Your task to perform on an android device: turn pop-ups on in chrome Image 0: 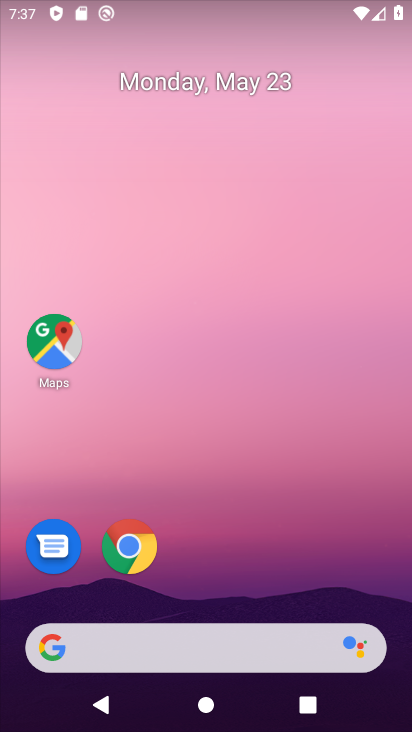
Step 0: drag from (392, 600) to (381, 173)
Your task to perform on an android device: turn pop-ups on in chrome Image 1: 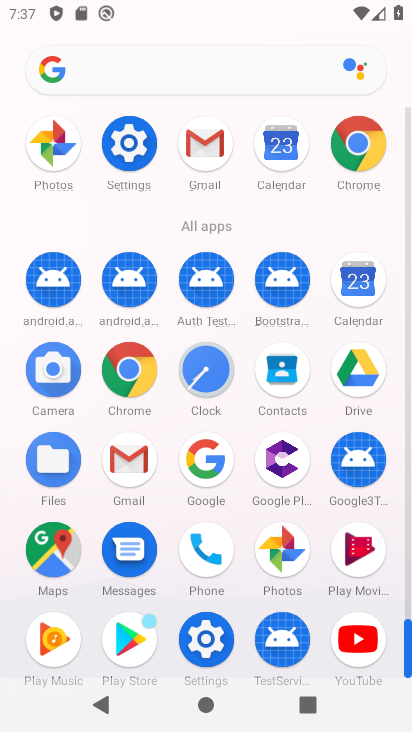
Step 1: click (138, 389)
Your task to perform on an android device: turn pop-ups on in chrome Image 2: 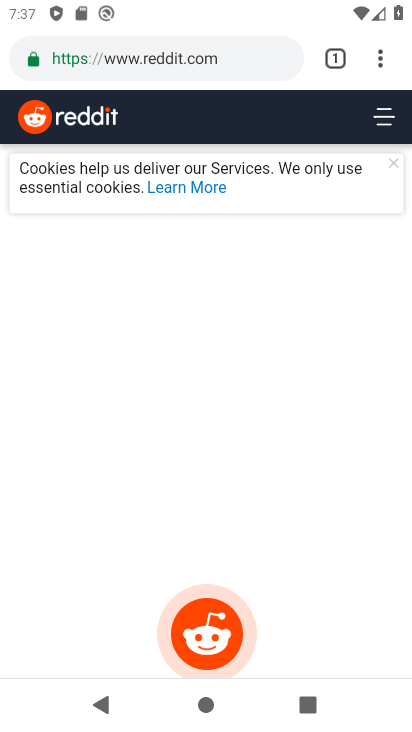
Step 2: click (380, 65)
Your task to perform on an android device: turn pop-ups on in chrome Image 3: 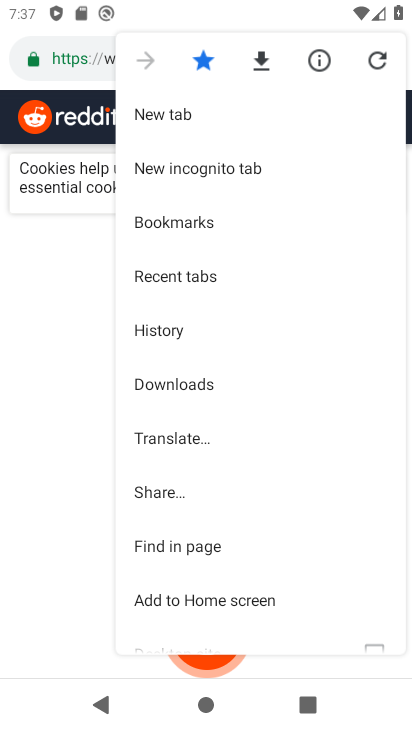
Step 3: drag from (362, 535) to (361, 429)
Your task to perform on an android device: turn pop-ups on in chrome Image 4: 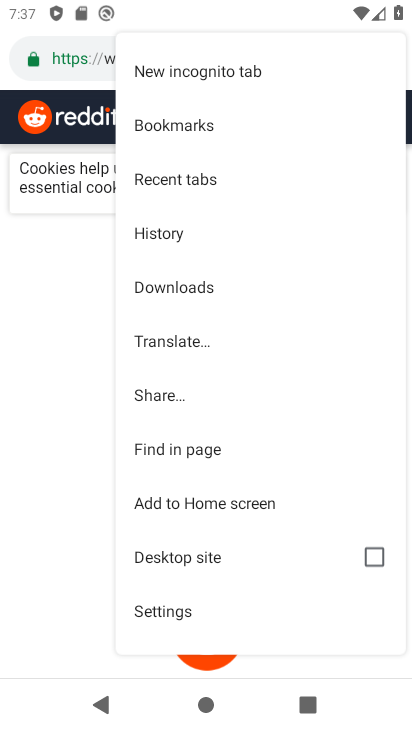
Step 4: drag from (308, 608) to (333, 465)
Your task to perform on an android device: turn pop-ups on in chrome Image 5: 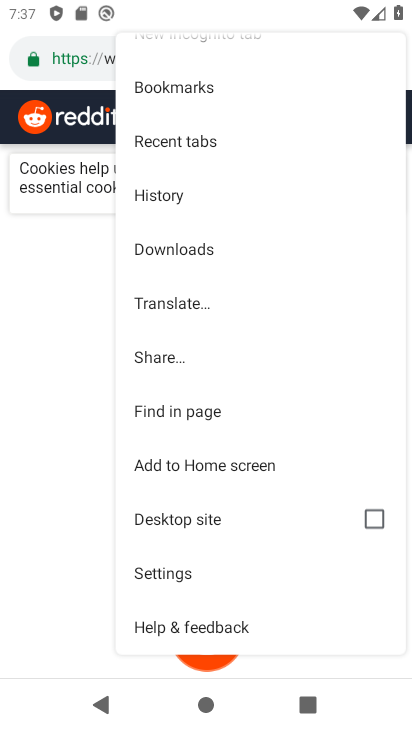
Step 5: click (173, 584)
Your task to perform on an android device: turn pop-ups on in chrome Image 6: 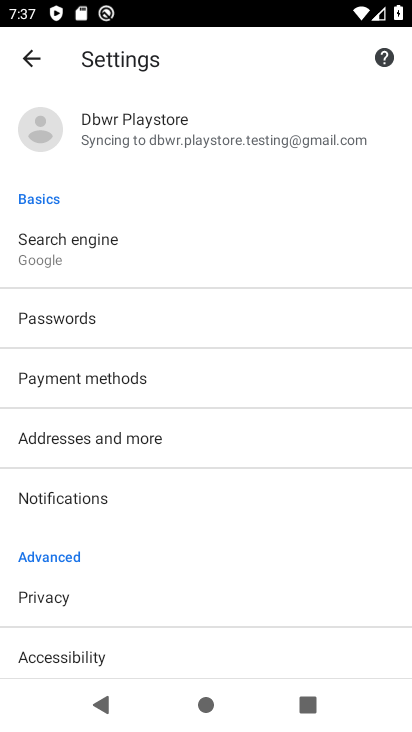
Step 6: drag from (344, 612) to (349, 529)
Your task to perform on an android device: turn pop-ups on in chrome Image 7: 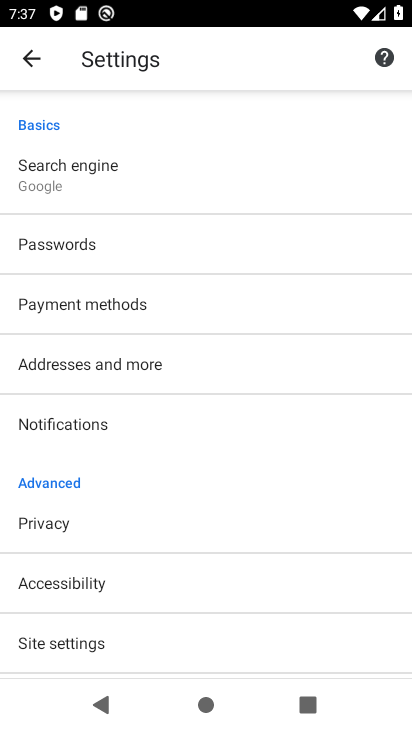
Step 7: drag from (358, 620) to (359, 540)
Your task to perform on an android device: turn pop-ups on in chrome Image 8: 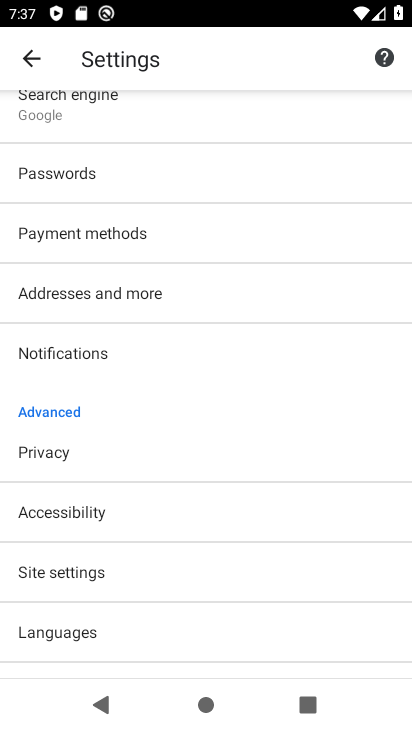
Step 8: drag from (359, 633) to (362, 557)
Your task to perform on an android device: turn pop-ups on in chrome Image 9: 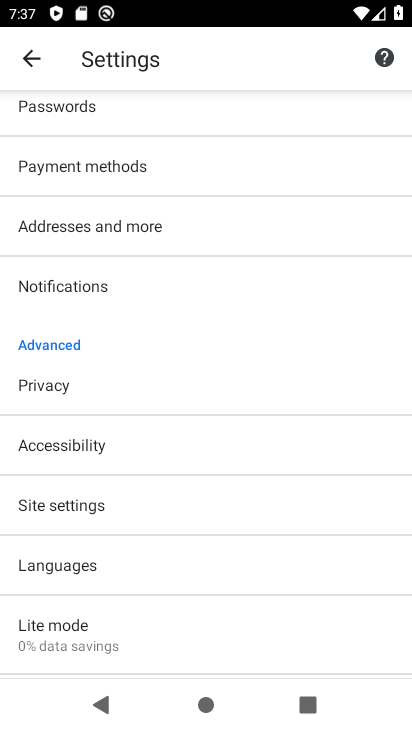
Step 9: drag from (352, 623) to (356, 542)
Your task to perform on an android device: turn pop-ups on in chrome Image 10: 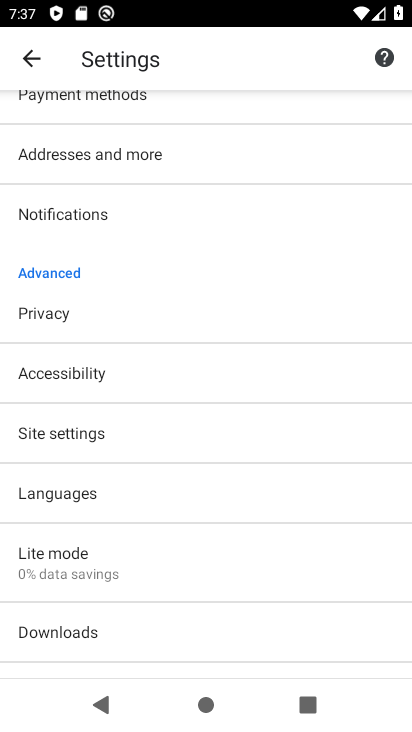
Step 10: drag from (355, 637) to (354, 541)
Your task to perform on an android device: turn pop-ups on in chrome Image 11: 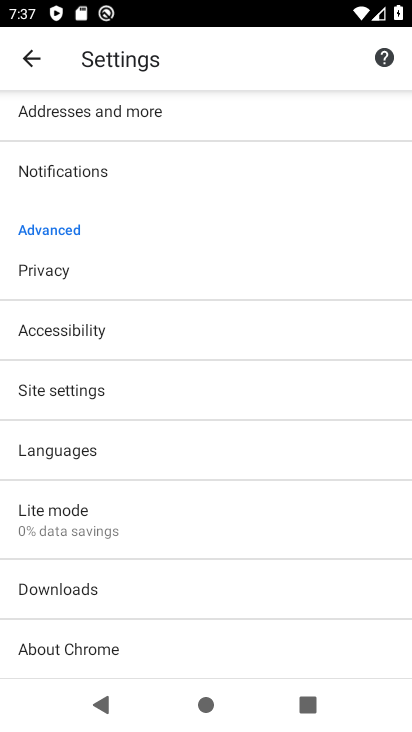
Step 11: click (214, 394)
Your task to perform on an android device: turn pop-ups on in chrome Image 12: 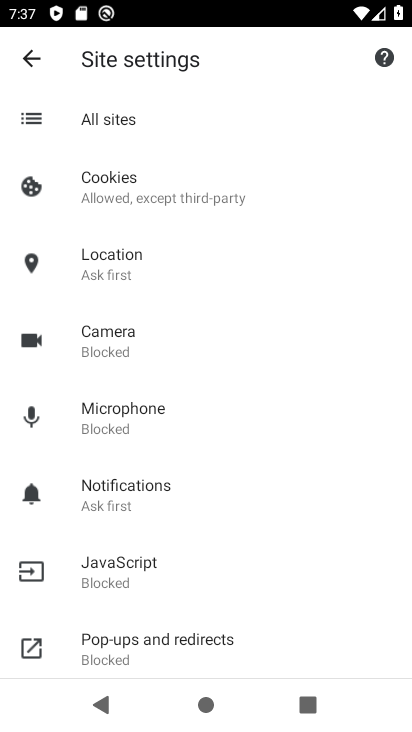
Step 12: drag from (320, 571) to (322, 475)
Your task to perform on an android device: turn pop-ups on in chrome Image 13: 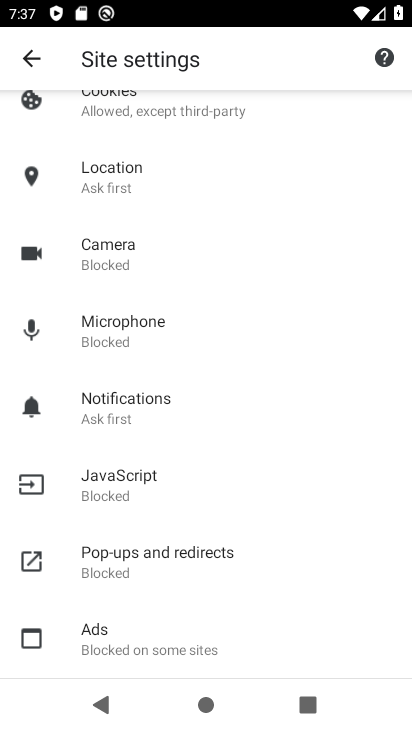
Step 13: drag from (350, 607) to (353, 489)
Your task to perform on an android device: turn pop-ups on in chrome Image 14: 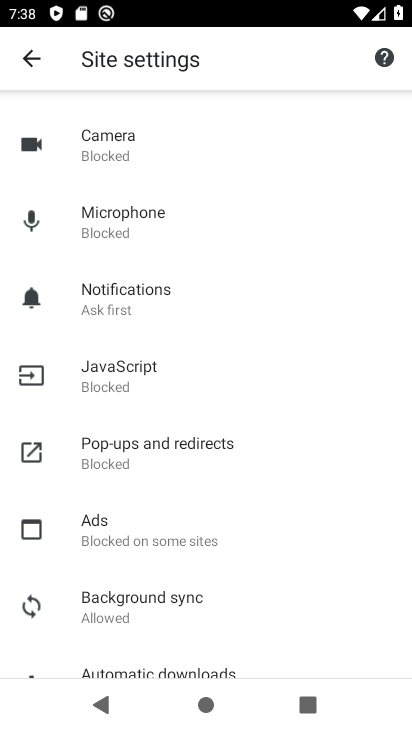
Step 14: drag from (364, 601) to (363, 511)
Your task to perform on an android device: turn pop-ups on in chrome Image 15: 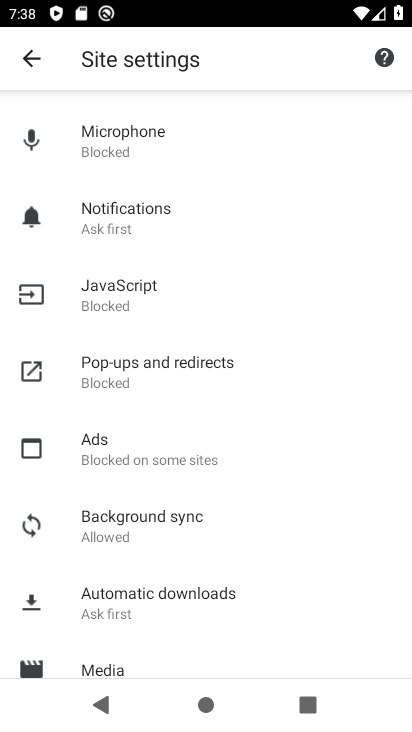
Step 15: click (174, 367)
Your task to perform on an android device: turn pop-ups on in chrome Image 16: 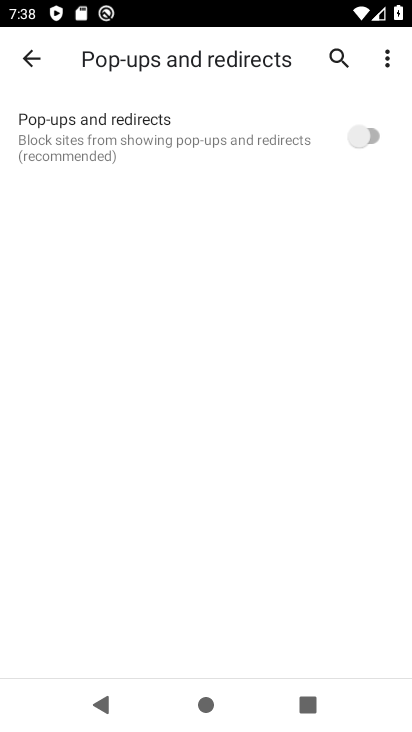
Step 16: click (364, 134)
Your task to perform on an android device: turn pop-ups on in chrome Image 17: 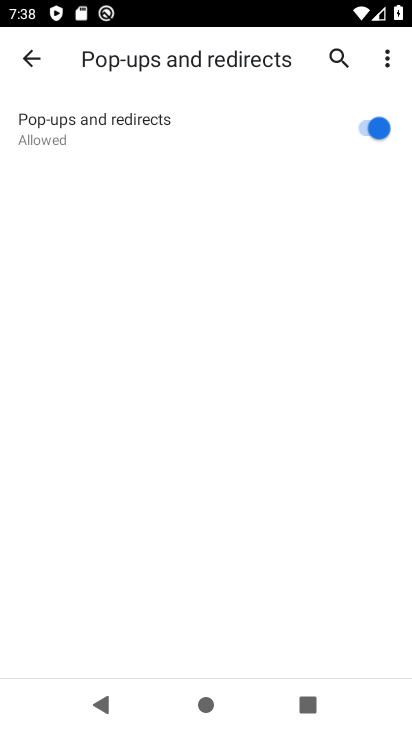
Step 17: task complete